Your task to perform on an android device: Open eBay Image 0: 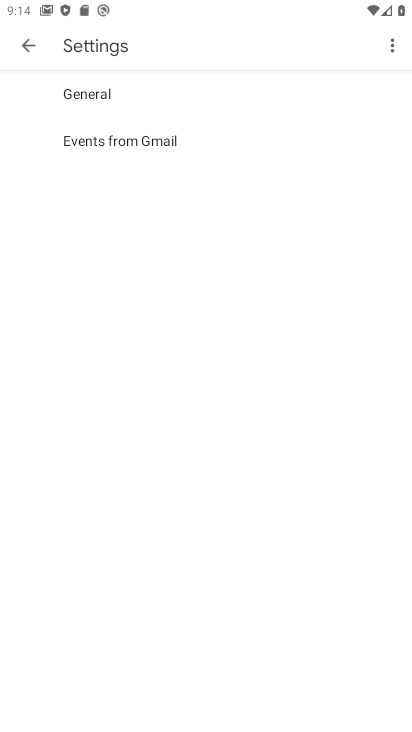
Step 0: press home button
Your task to perform on an android device: Open eBay Image 1: 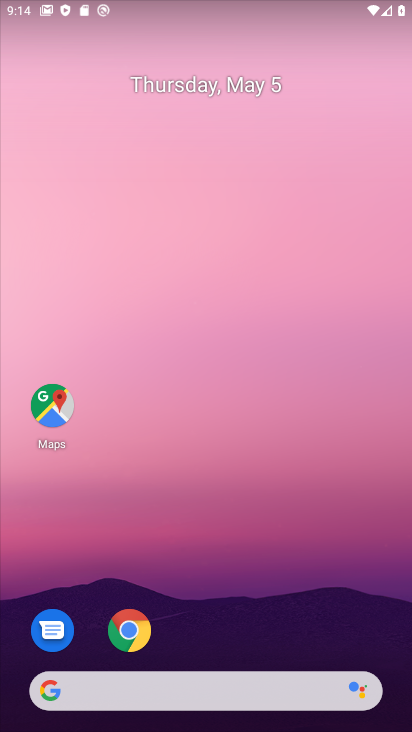
Step 1: click (125, 638)
Your task to perform on an android device: Open eBay Image 2: 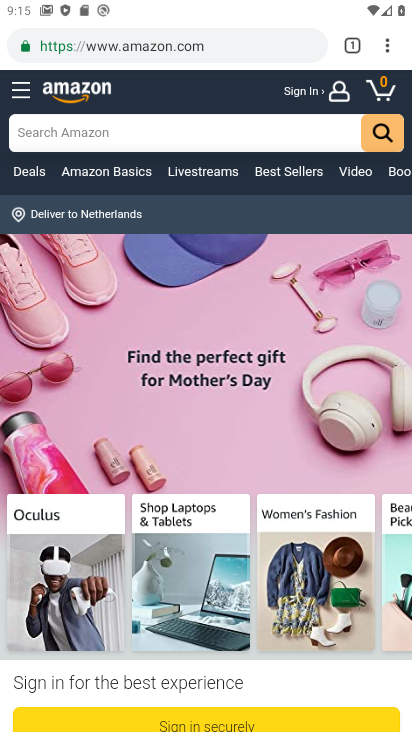
Step 2: click (233, 48)
Your task to perform on an android device: Open eBay Image 3: 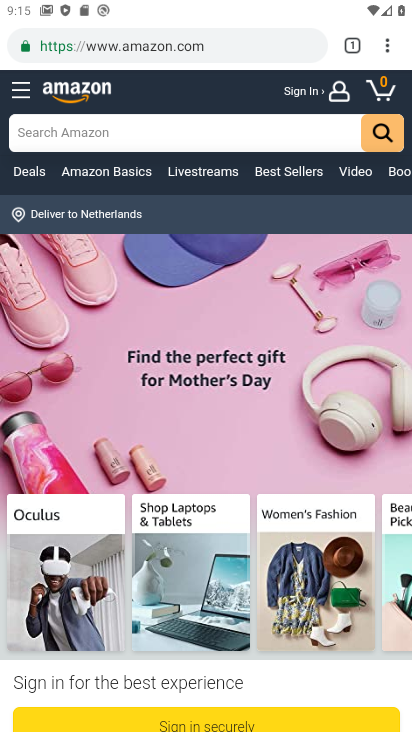
Step 3: click (233, 48)
Your task to perform on an android device: Open eBay Image 4: 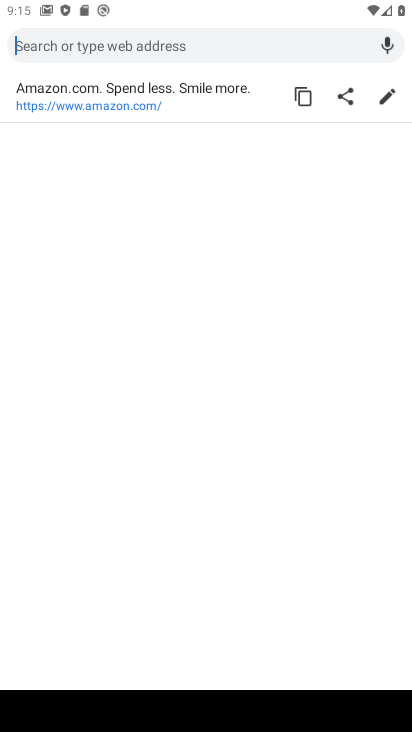
Step 4: type "ebay.com"
Your task to perform on an android device: Open eBay Image 5: 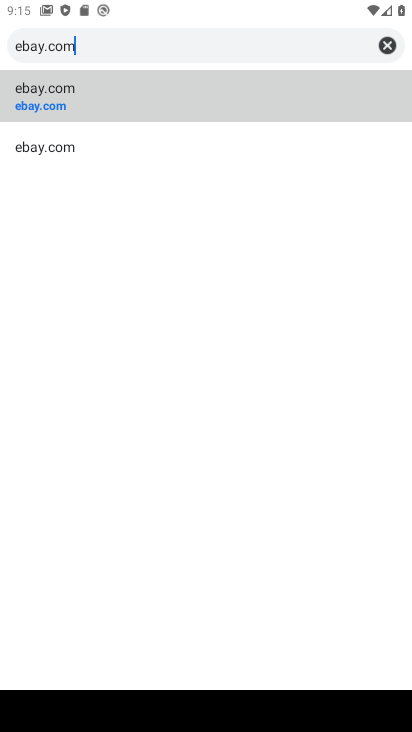
Step 5: click (127, 100)
Your task to perform on an android device: Open eBay Image 6: 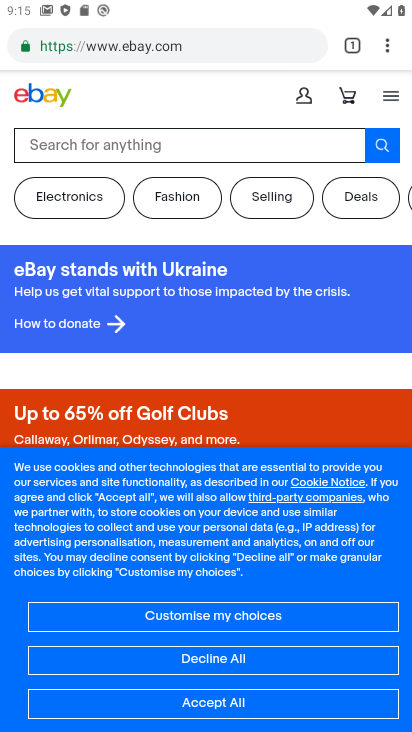
Step 6: task complete